Your task to perform on an android device: What's on my calendar tomorrow? Image 0: 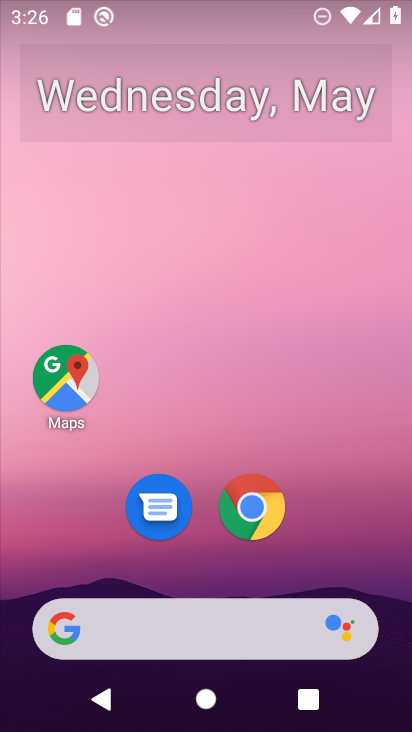
Step 0: drag from (219, 402) to (270, 6)
Your task to perform on an android device: What's on my calendar tomorrow? Image 1: 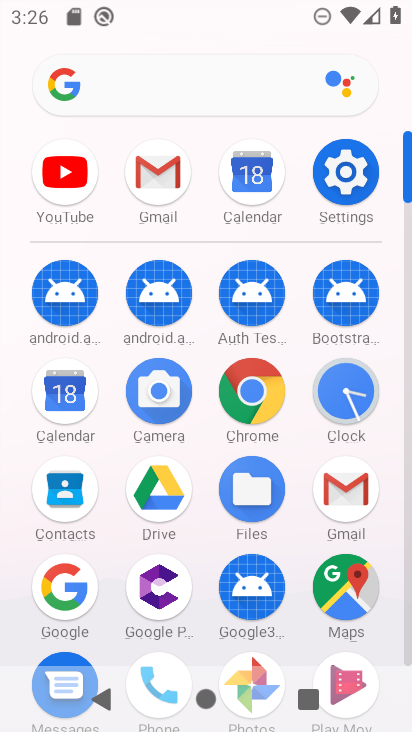
Step 1: click (75, 402)
Your task to perform on an android device: What's on my calendar tomorrow? Image 2: 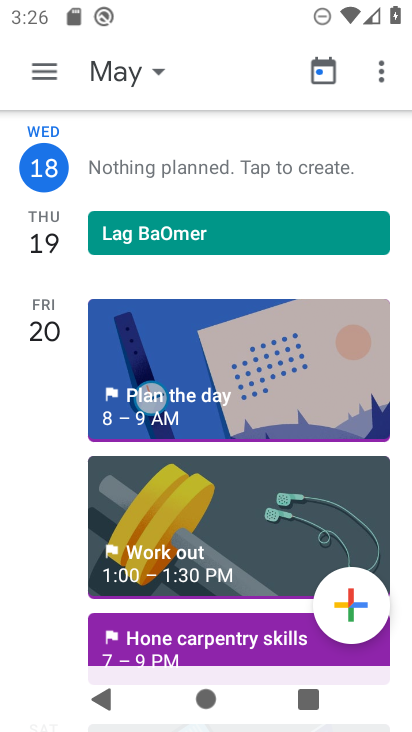
Step 2: task complete